Your task to perform on an android device: Open Yahoo.com Image 0: 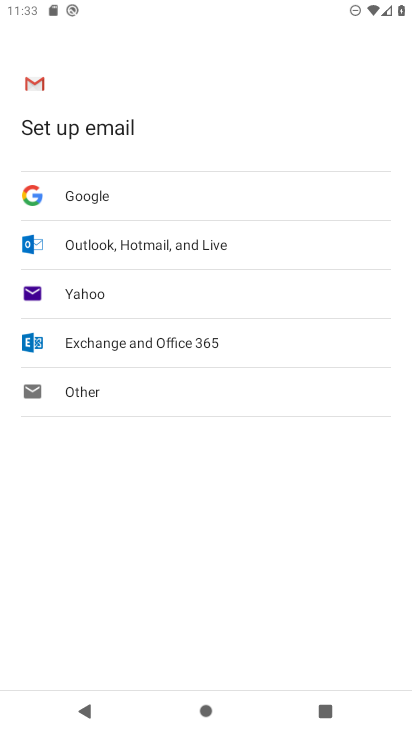
Step 0: press home button
Your task to perform on an android device: Open Yahoo.com Image 1: 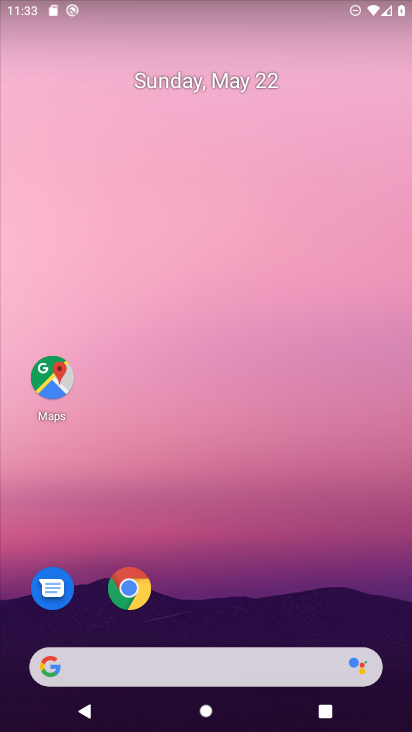
Step 1: click (129, 595)
Your task to perform on an android device: Open Yahoo.com Image 2: 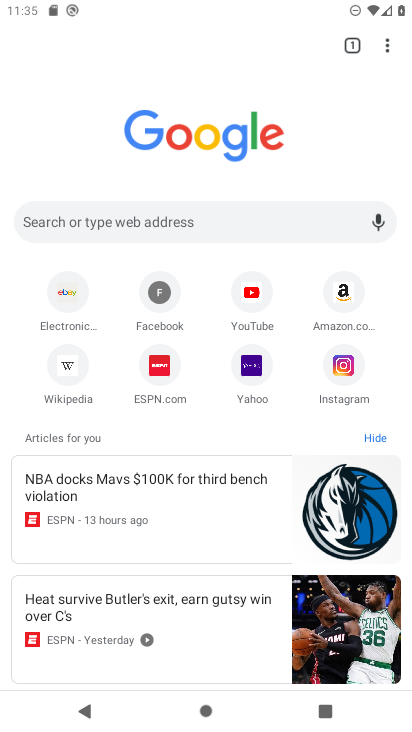
Step 2: click (256, 365)
Your task to perform on an android device: Open Yahoo.com Image 3: 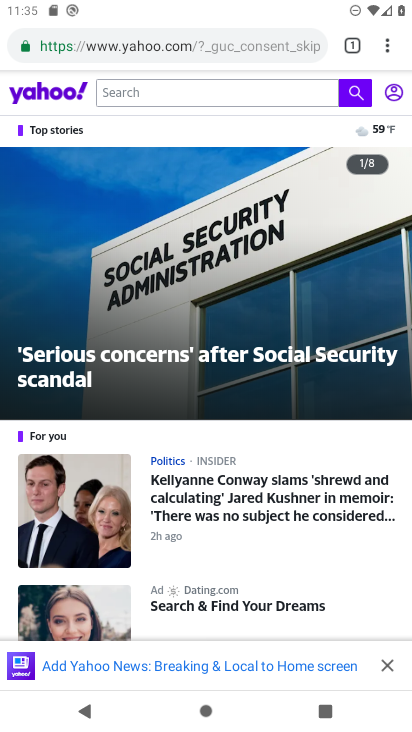
Step 3: task complete